Your task to perform on an android device: What's on my calendar tomorrow? Image 0: 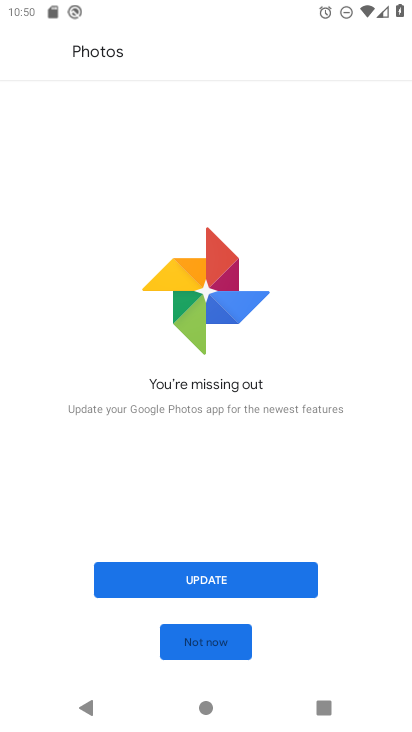
Step 0: press home button
Your task to perform on an android device: What's on my calendar tomorrow? Image 1: 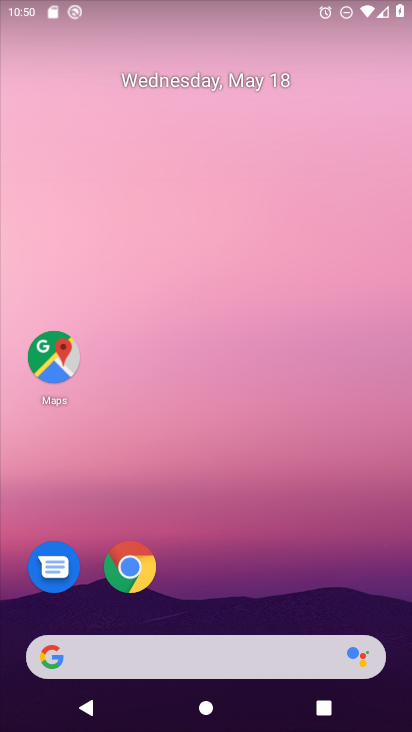
Step 1: drag from (295, 690) to (304, 210)
Your task to perform on an android device: What's on my calendar tomorrow? Image 2: 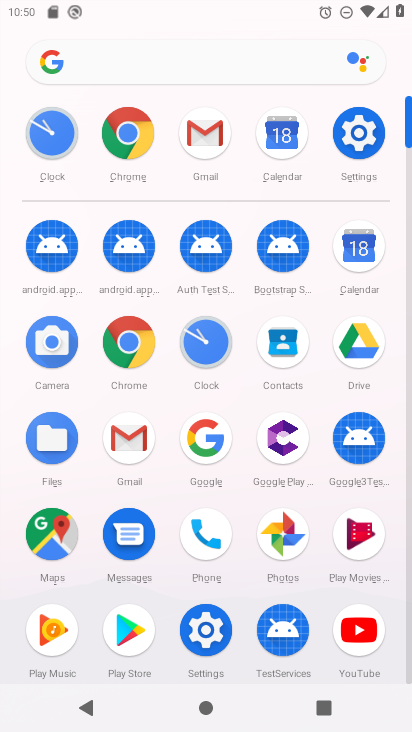
Step 2: click (330, 255)
Your task to perform on an android device: What's on my calendar tomorrow? Image 3: 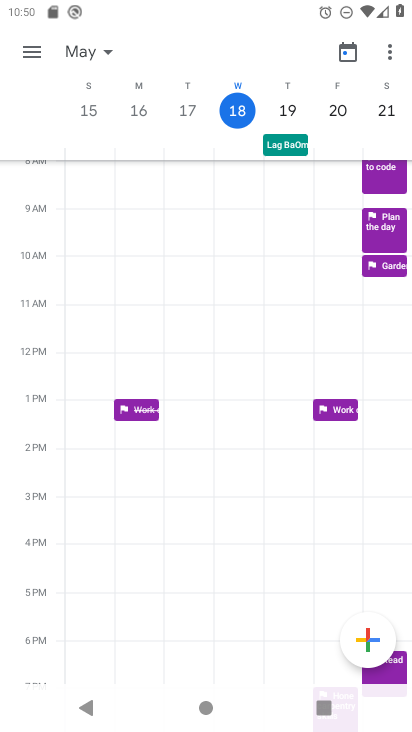
Step 3: click (47, 50)
Your task to perform on an android device: What's on my calendar tomorrow? Image 4: 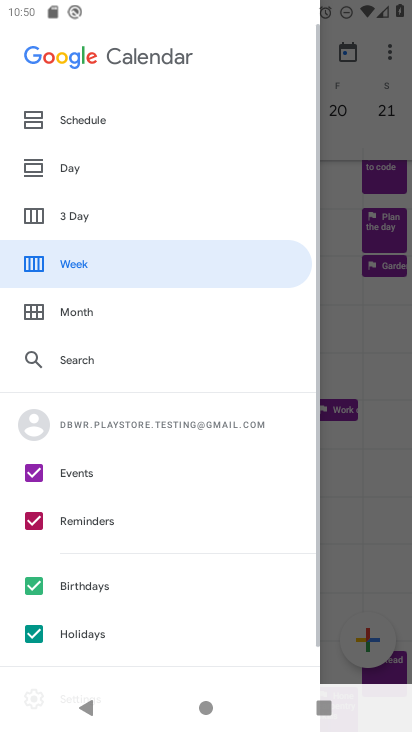
Step 4: click (72, 161)
Your task to perform on an android device: What's on my calendar tomorrow? Image 5: 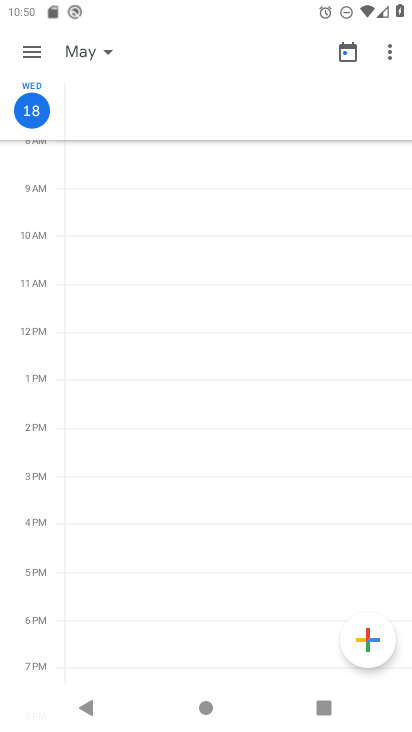
Step 5: click (18, 48)
Your task to perform on an android device: What's on my calendar tomorrow? Image 6: 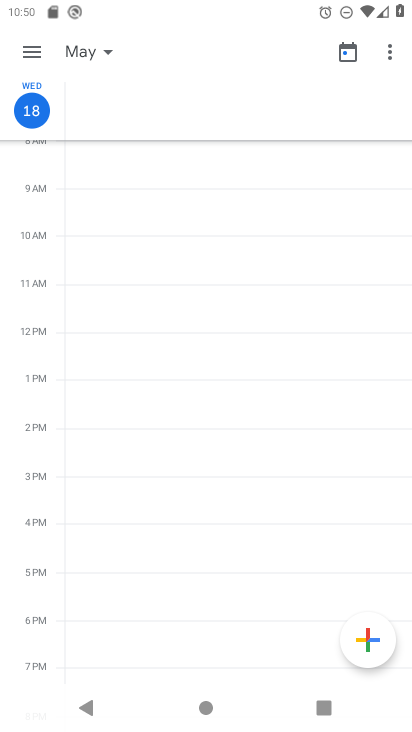
Step 6: click (29, 55)
Your task to perform on an android device: What's on my calendar tomorrow? Image 7: 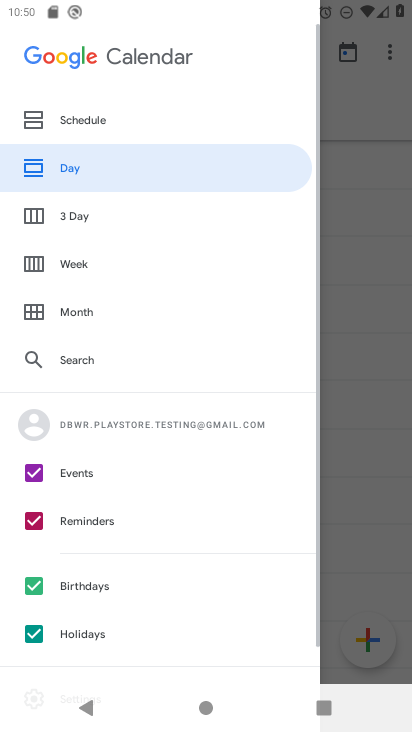
Step 7: click (72, 220)
Your task to perform on an android device: What's on my calendar tomorrow? Image 8: 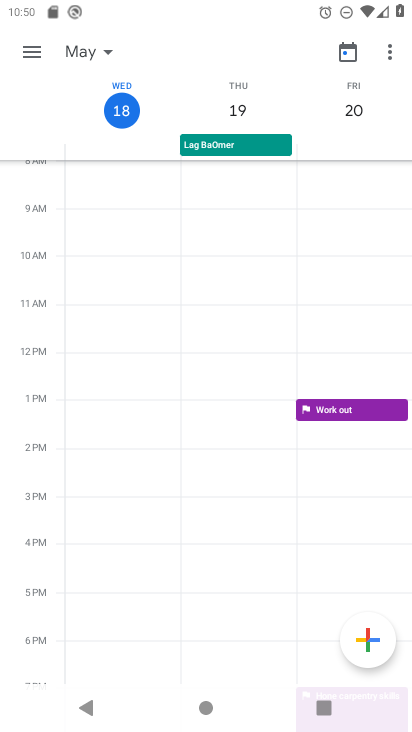
Step 8: click (223, 108)
Your task to perform on an android device: What's on my calendar tomorrow? Image 9: 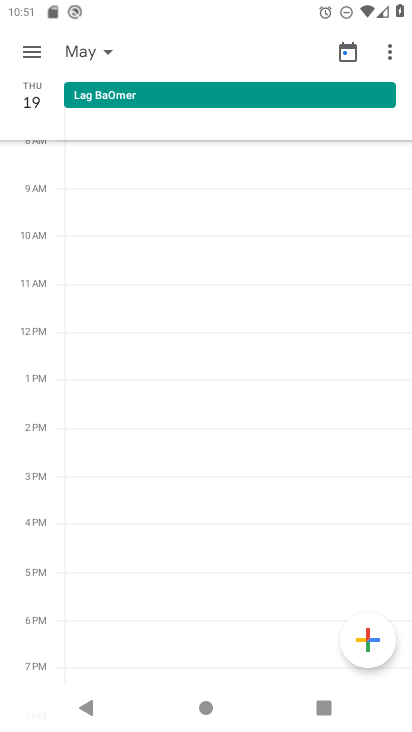
Step 9: click (130, 100)
Your task to perform on an android device: What's on my calendar tomorrow? Image 10: 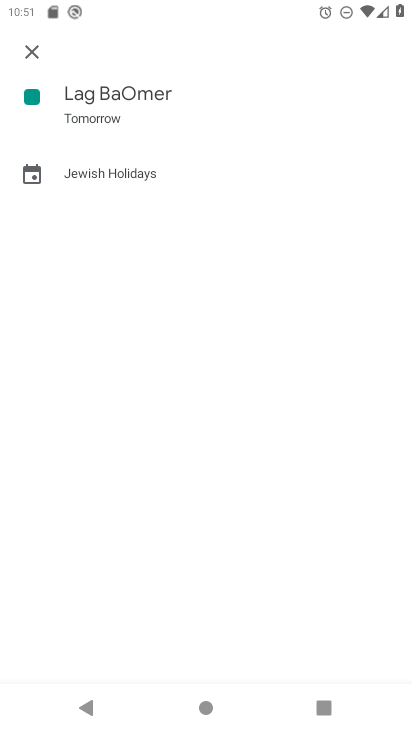
Step 10: task complete